Your task to perform on an android device: open app "Venmo" Image 0: 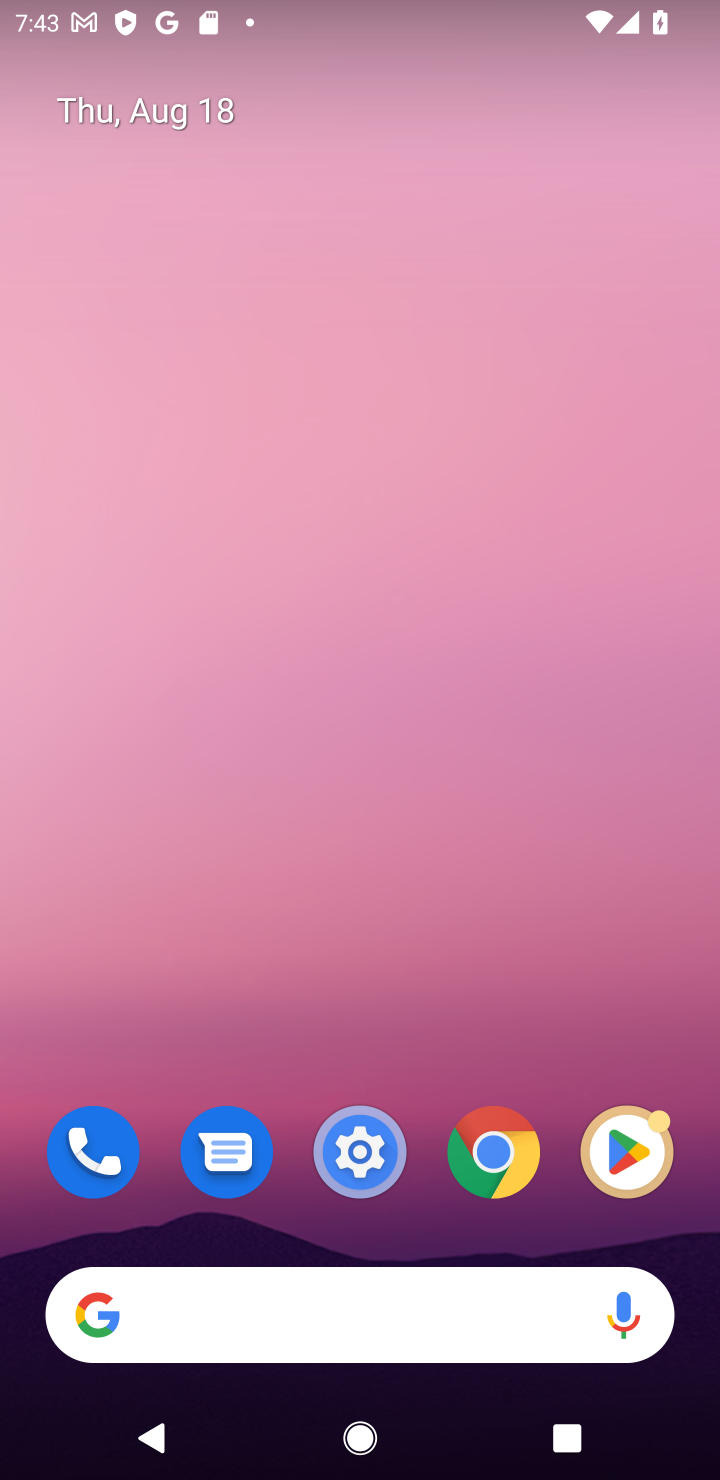
Step 0: click (650, 1164)
Your task to perform on an android device: open app "Venmo" Image 1: 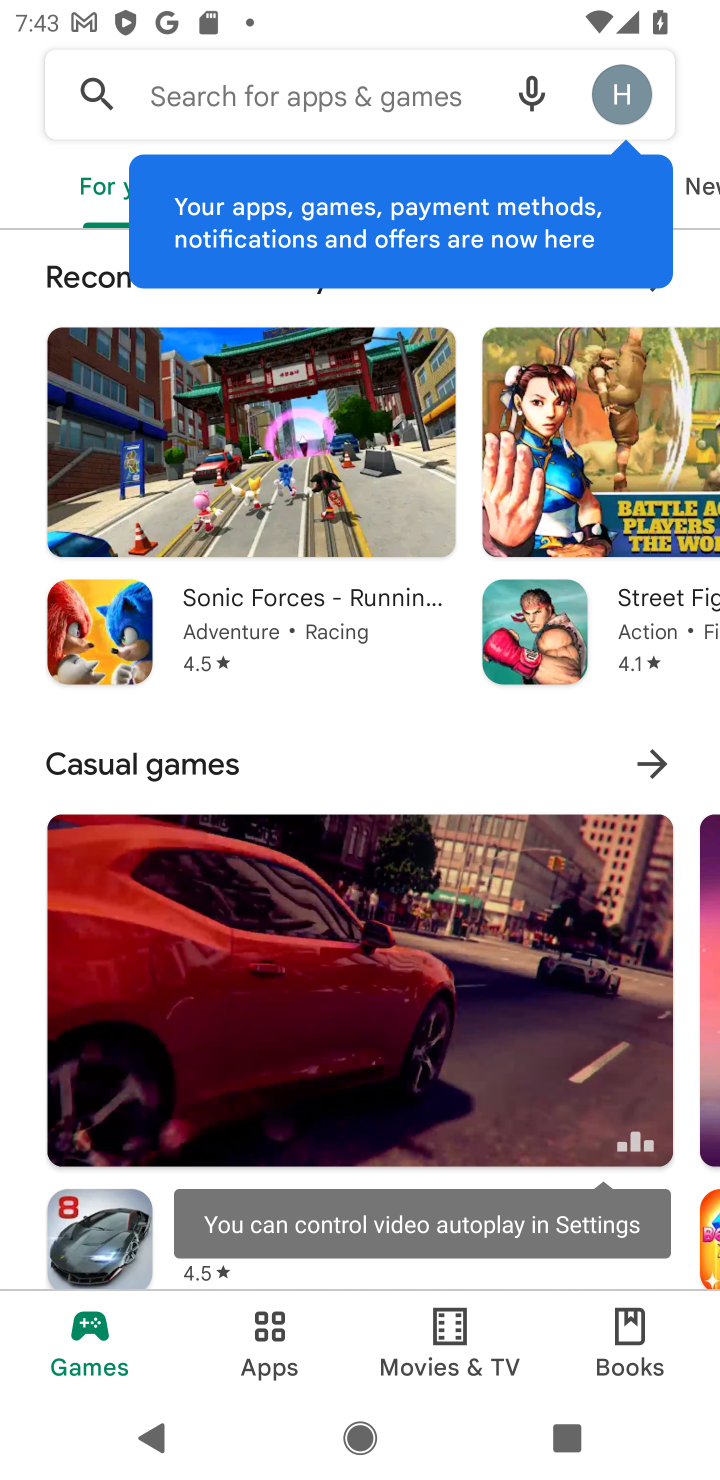
Step 1: click (422, 87)
Your task to perform on an android device: open app "Venmo" Image 2: 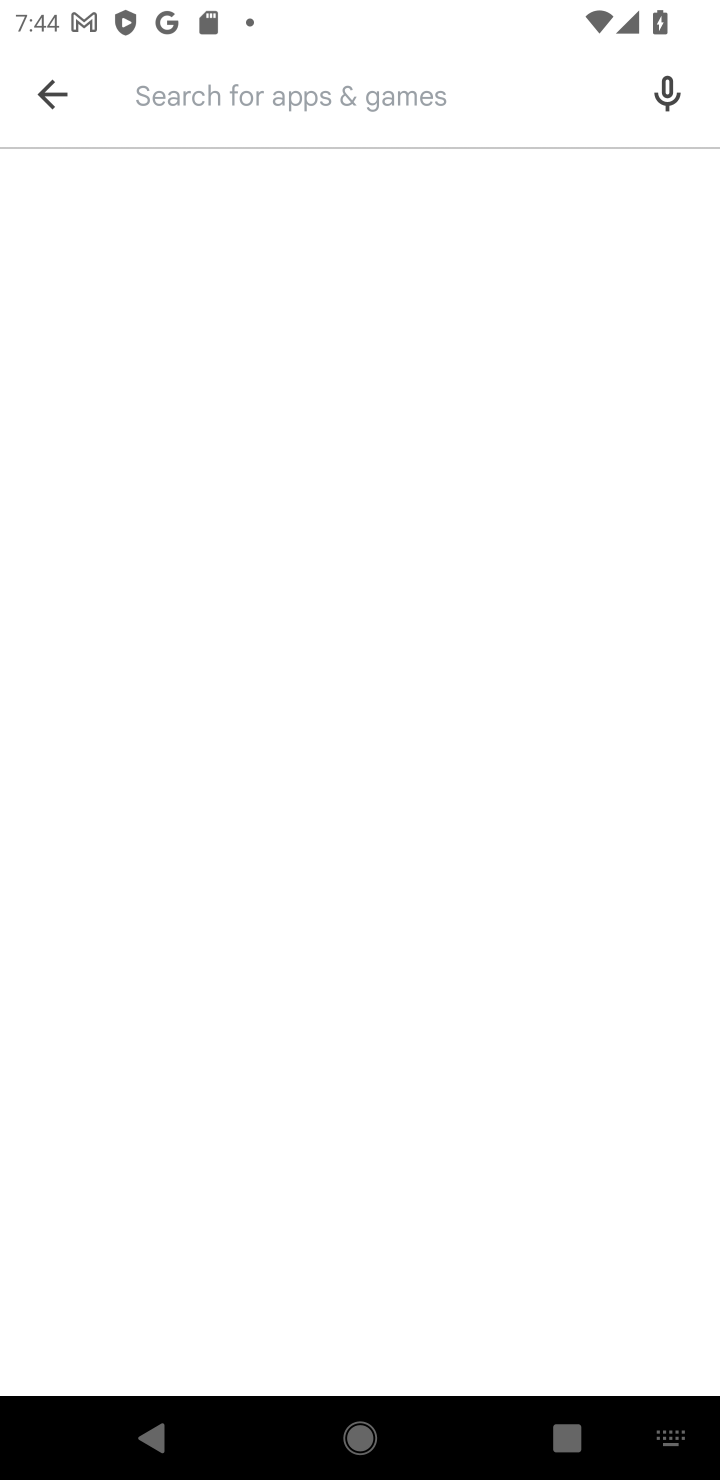
Step 2: type "venmo"
Your task to perform on an android device: open app "Venmo" Image 3: 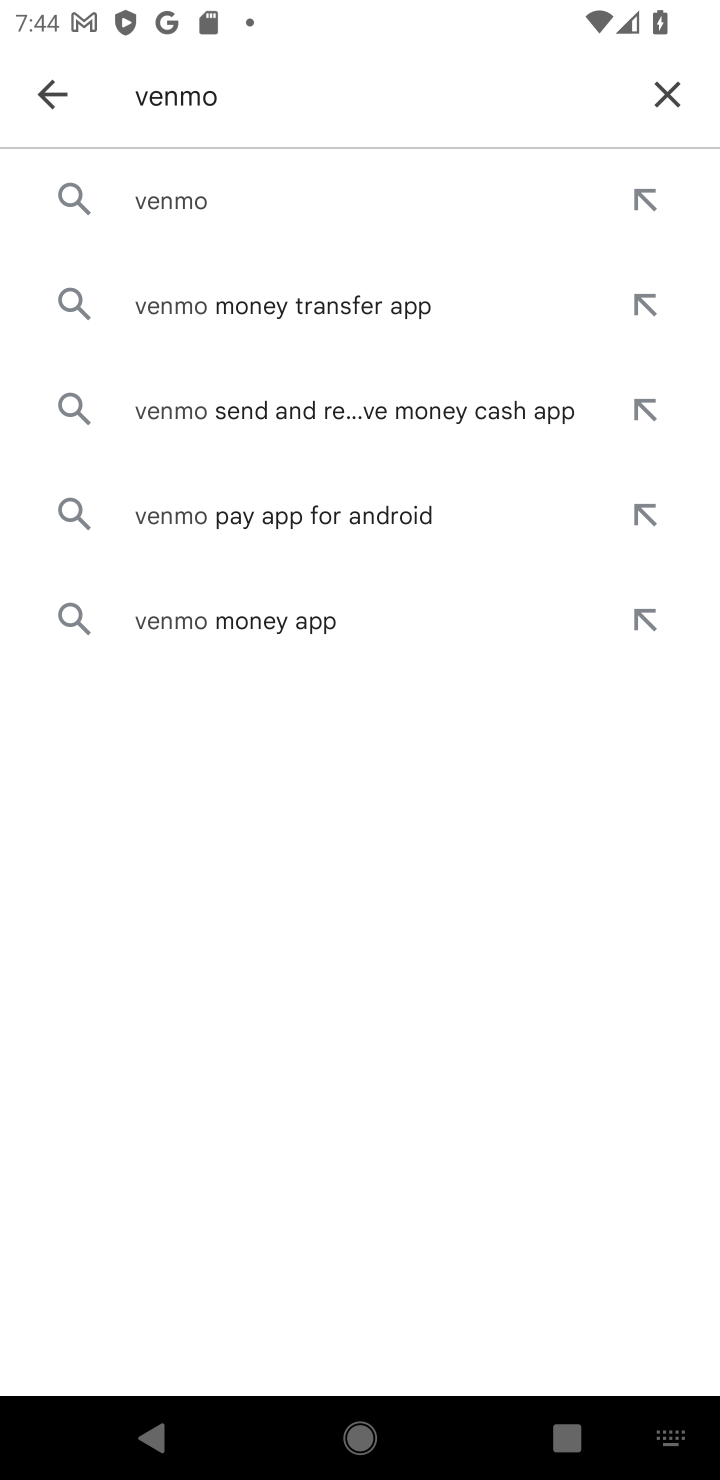
Step 3: click (227, 179)
Your task to perform on an android device: open app "Venmo" Image 4: 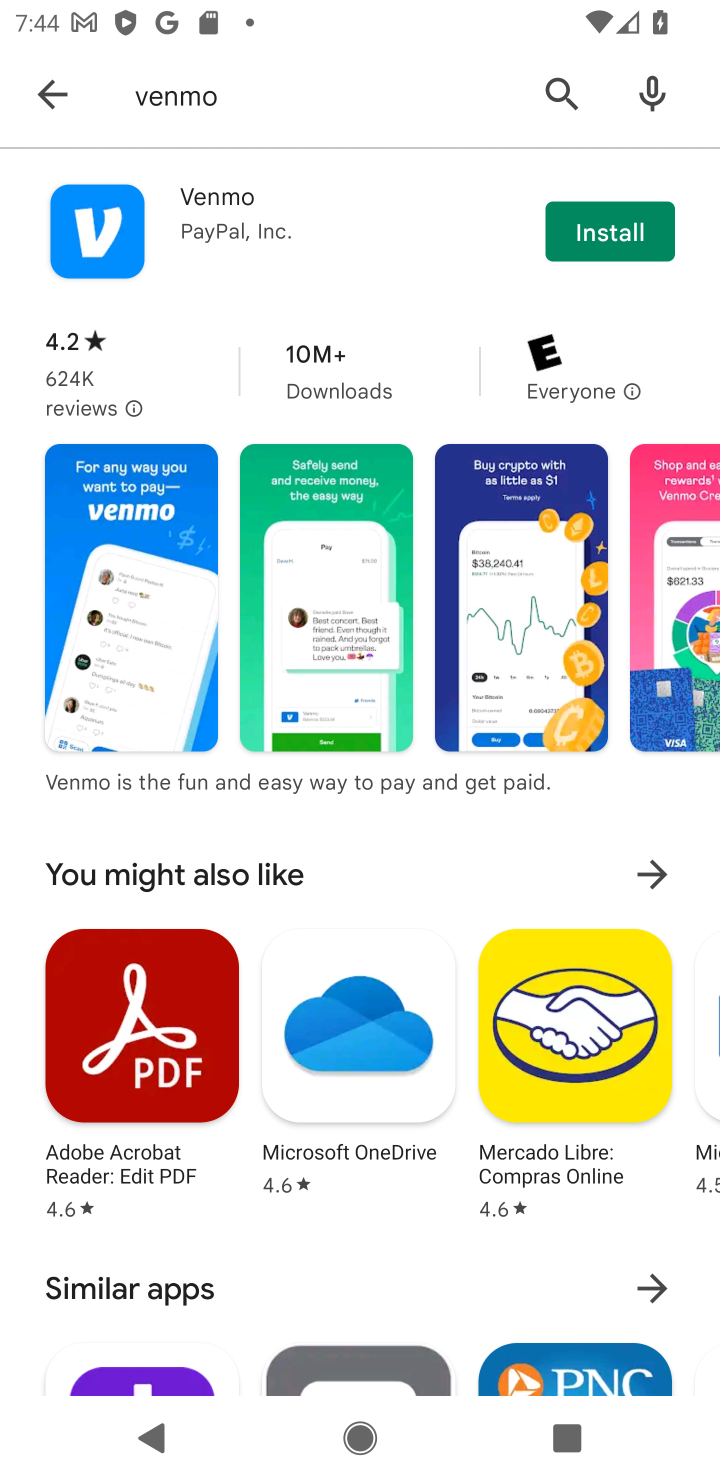
Step 4: task complete